Your task to perform on an android device: Check out the best rated books on Goodreads. Image 0: 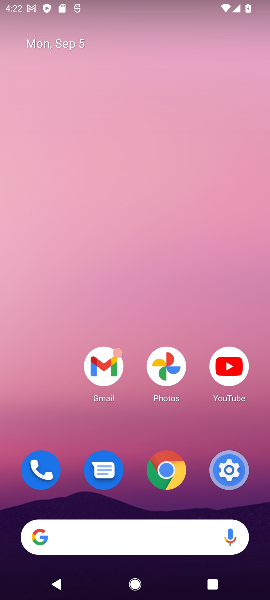
Step 0: click (147, 537)
Your task to perform on an android device: Check out the best rated books on Goodreads. Image 1: 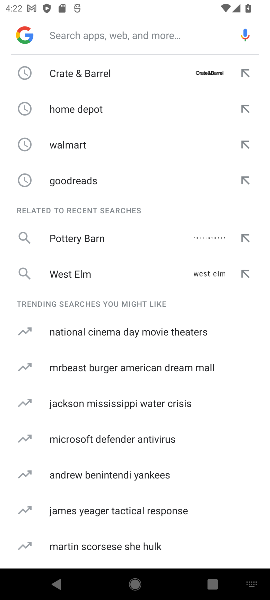
Step 1: click (94, 39)
Your task to perform on an android device: Check out the best rated books on Goodreads. Image 2: 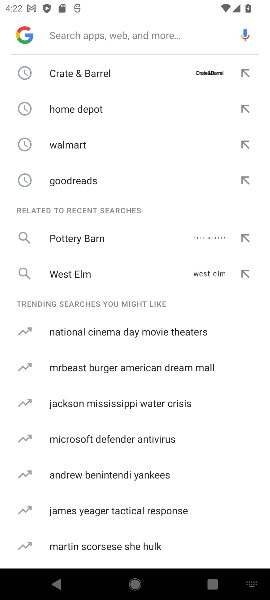
Step 2: click (73, 181)
Your task to perform on an android device: Check out the best rated books on Goodreads. Image 3: 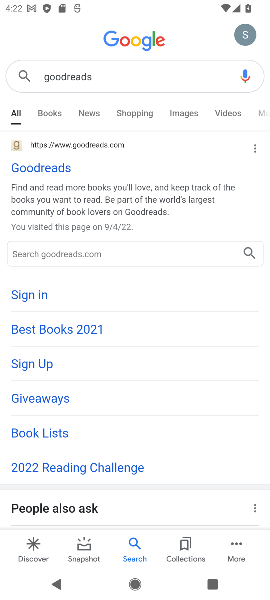
Step 3: click (54, 156)
Your task to perform on an android device: Check out the best rated books on Goodreads. Image 4: 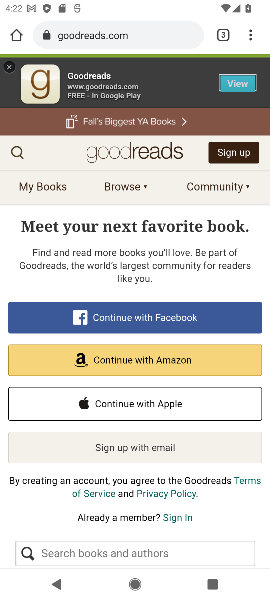
Step 4: click (17, 152)
Your task to perform on an android device: Check out the best rated books on Goodreads. Image 5: 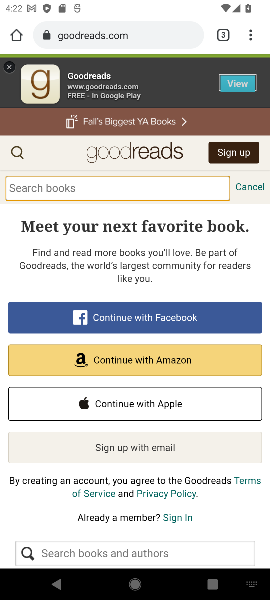
Step 5: click (38, 182)
Your task to perform on an android device: Check out the best rated books on Goodreads. Image 6: 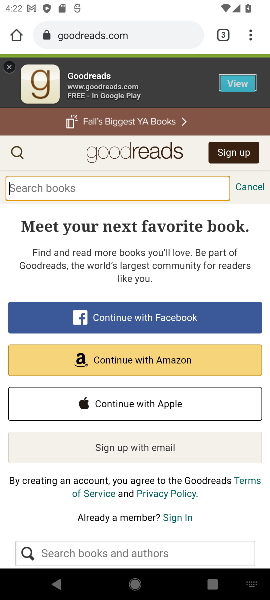
Step 6: click (40, 187)
Your task to perform on an android device: Check out the best rated books on Goodreads. Image 7: 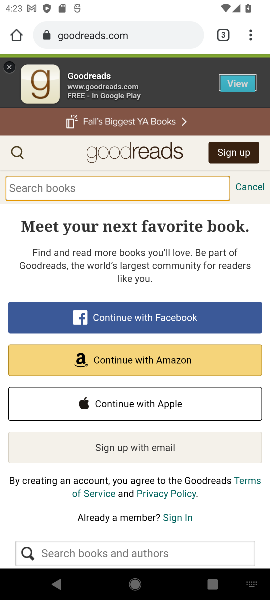
Step 7: type "best rated books"
Your task to perform on an android device: Check out the best rated books on Goodreads. Image 8: 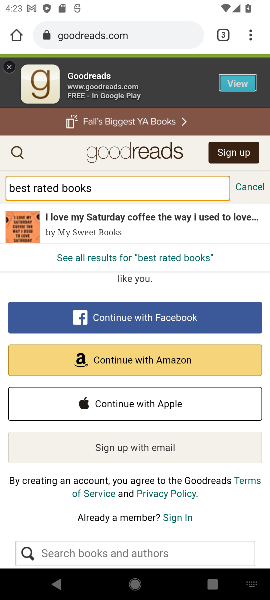
Step 8: click (194, 323)
Your task to perform on an android device: Check out the best rated books on Goodreads. Image 9: 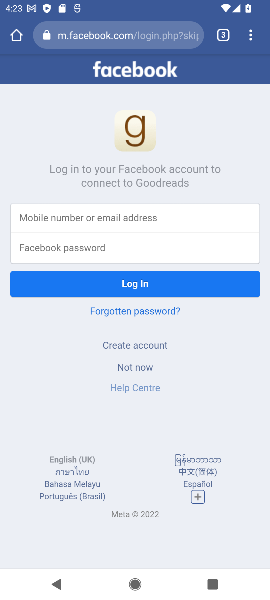
Step 9: press back button
Your task to perform on an android device: Check out the best rated books on Goodreads. Image 10: 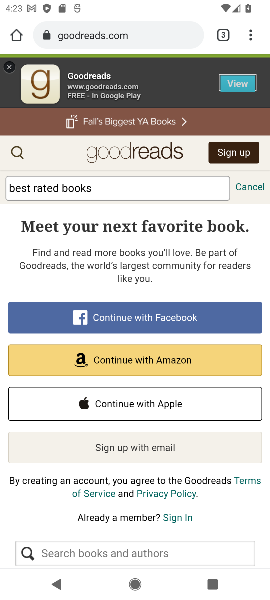
Step 10: press enter
Your task to perform on an android device: Check out the best rated books on Goodreads. Image 11: 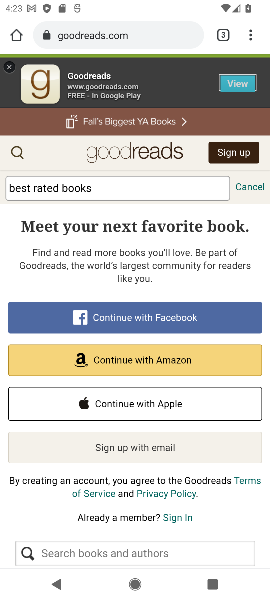
Step 11: click (142, 199)
Your task to perform on an android device: Check out the best rated books on Goodreads. Image 12: 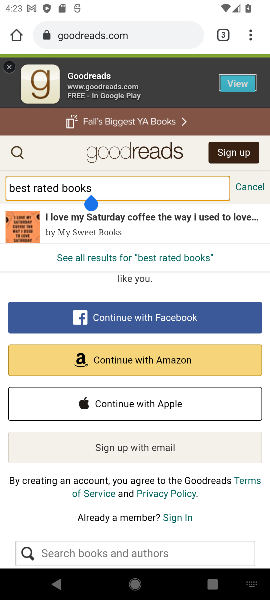
Step 12: press enter
Your task to perform on an android device: Check out the best rated books on Goodreads. Image 13: 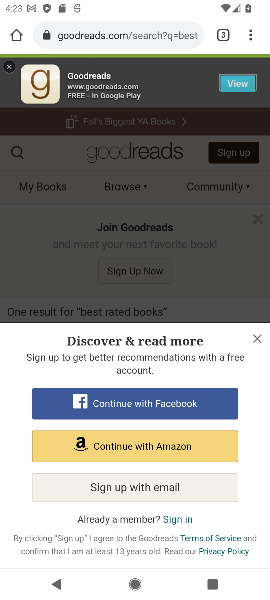
Step 13: click (255, 338)
Your task to perform on an android device: Check out the best rated books on Goodreads. Image 14: 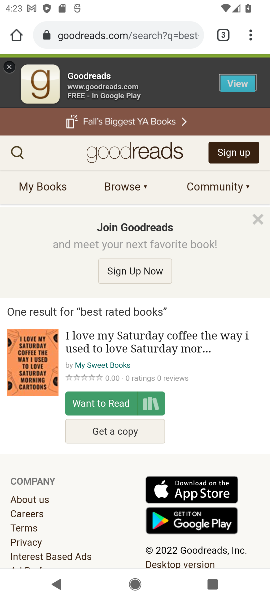
Step 14: task complete